Your task to perform on an android device: Is it going to rain this weekend? Image 0: 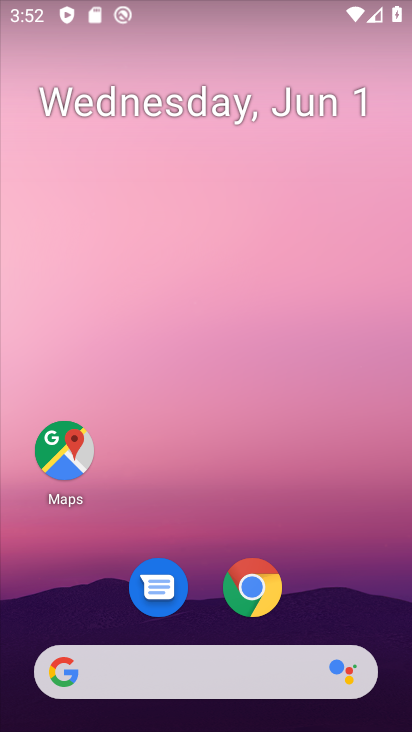
Step 0: drag from (346, 587) to (306, 77)
Your task to perform on an android device: Is it going to rain this weekend? Image 1: 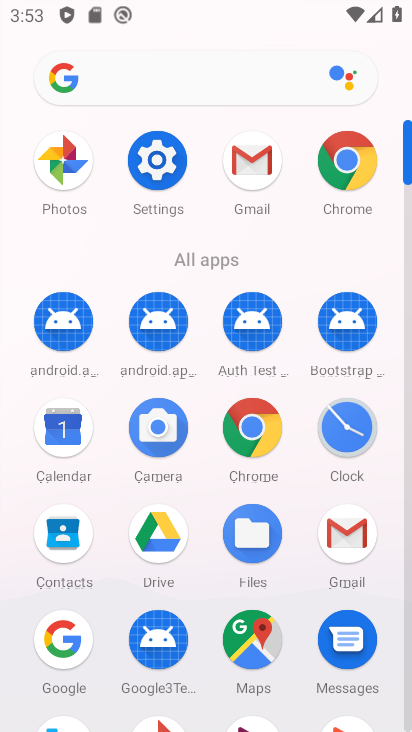
Step 1: click (54, 640)
Your task to perform on an android device: Is it going to rain this weekend? Image 2: 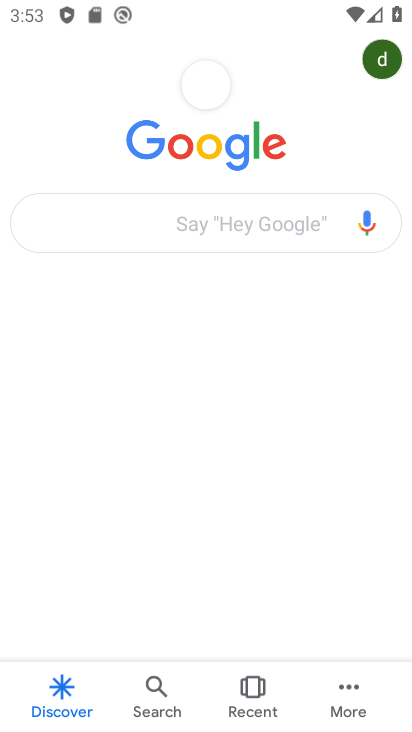
Step 2: click (206, 217)
Your task to perform on an android device: Is it going to rain this weekend? Image 3: 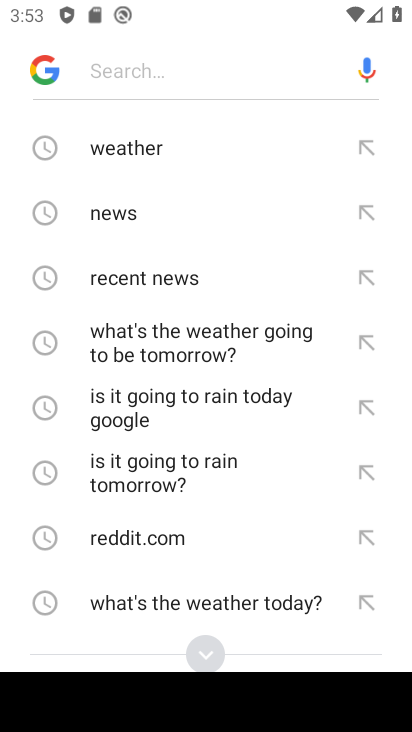
Step 3: type "Is it going to rain this weekend?"
Your task to perform on an android device: Is it going to rain this weekend? Image 4: 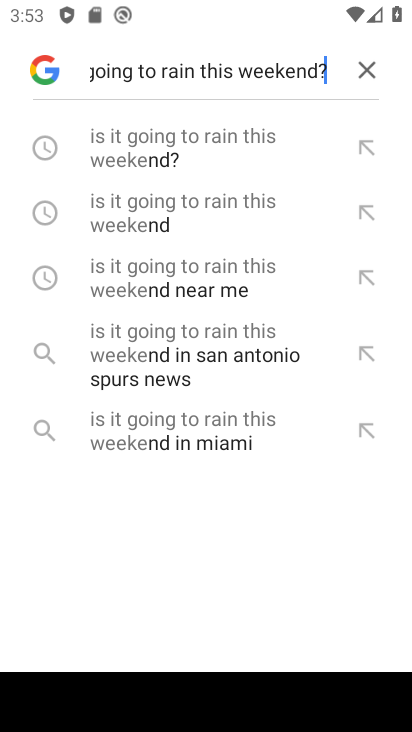
Step 4: type ""
Your task to perform on an android device: Is it going to rain this weekend? Image 5: 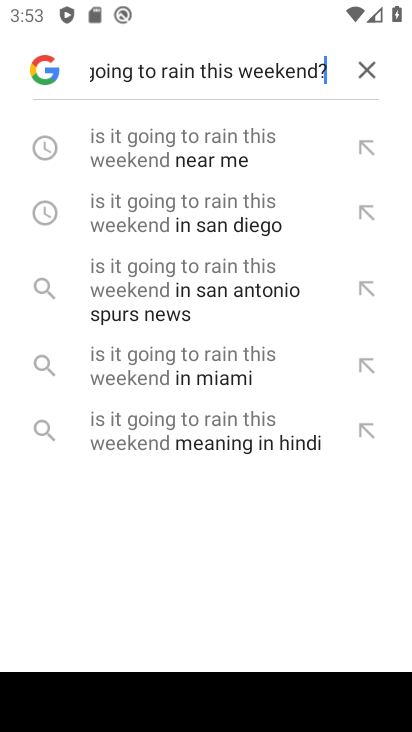
Step 5: click (219, 213)
Your task to perform on an android device: Is it going to rain this weekend? Image 6: 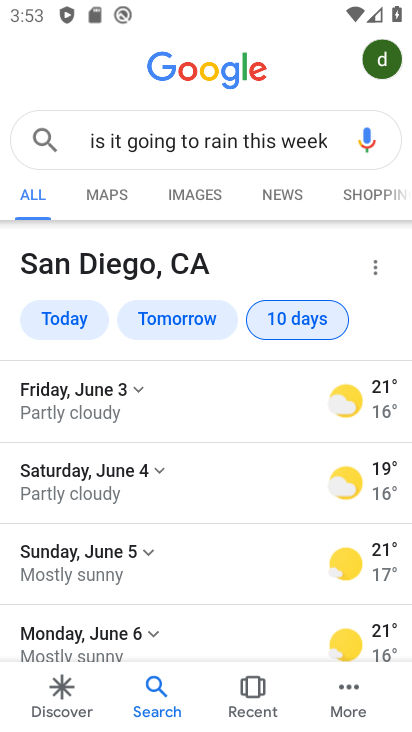
Step 6: task complete